Your task to perform on an android device: Open the stopwatch Image 0: 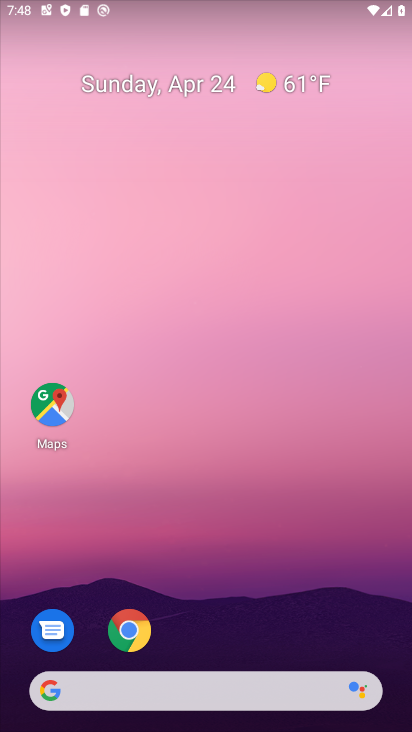
Step 0: drag from (375, 587) to (370, 117)
Your task to perform on an android device: Open the stopwatch Image 1: 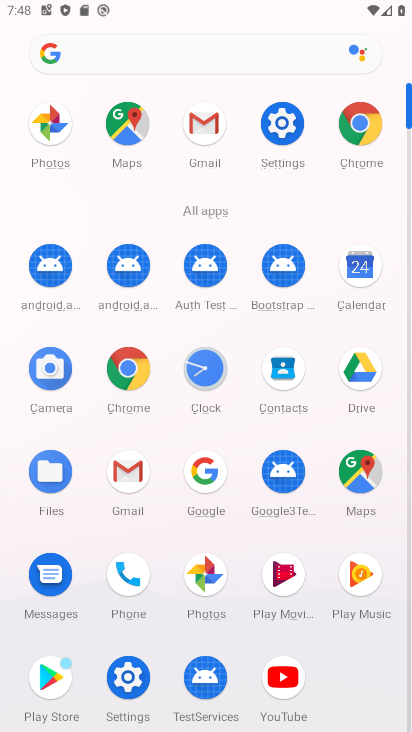
Step 1: click (212, 370)
Your task to perform on an android device: Open the stopwatch Image 2: 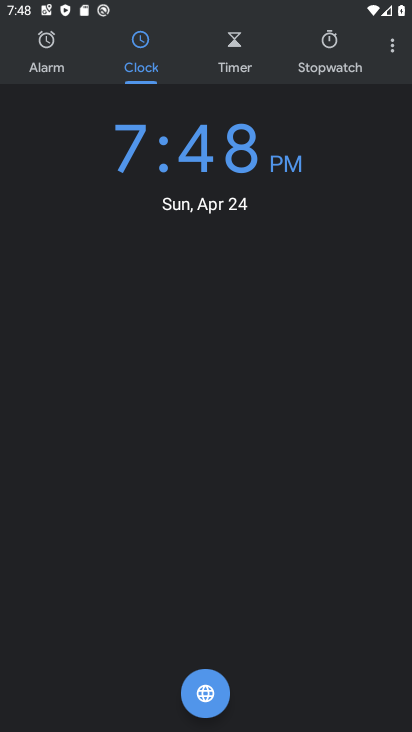
Step 2: click (330, 46)
Your task to perform on an android device: Open the stopwatch Image 3: 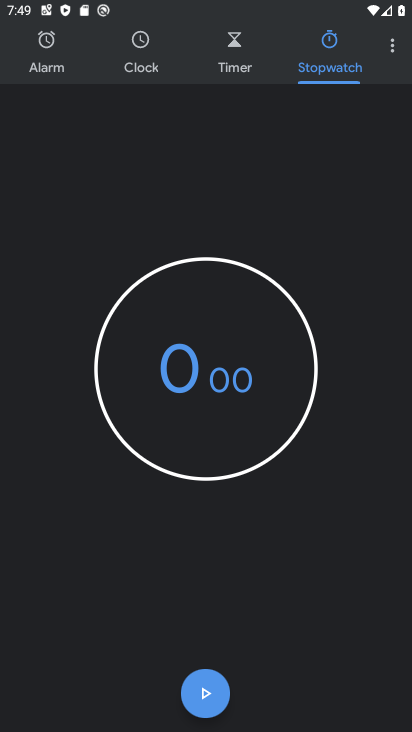
Step 3: task complete